Your task to perform on an android device: change the clock display to analog Image 0: 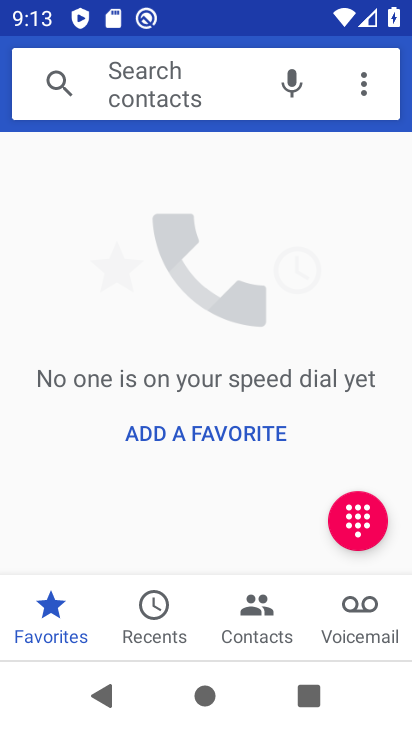
Step 0: press back button
Your task to perform on an android device: change the clock display to analog Image 1: 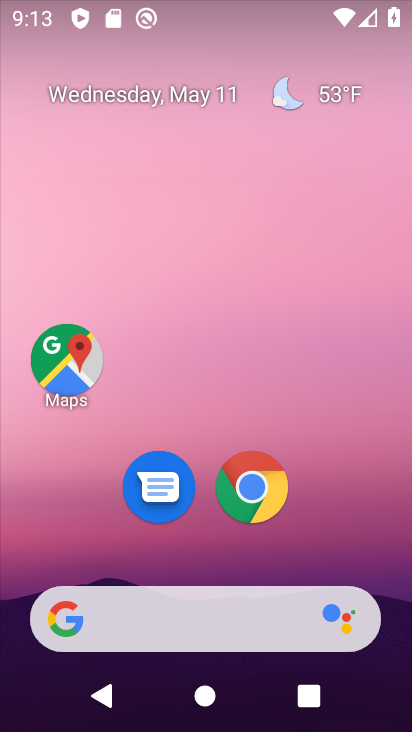
Step 1: drag from (315, 523) to (263, 0)
Your task to perform on an android device: change the clock display to analog Image 2: 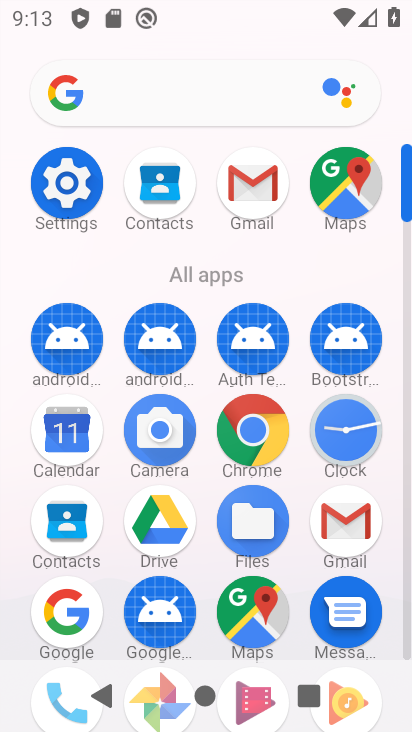
Step 2: click (348, 432)
Your task to perform on an android device: change the clock display to analog Image 3: 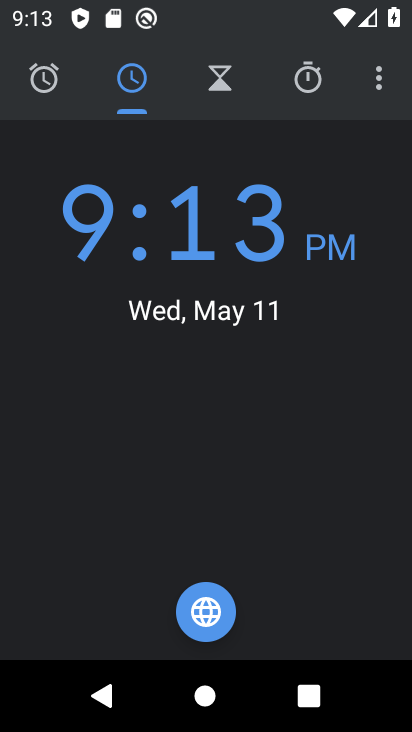
Step 3: click (379, 82)
Your task to perform on an android device: change the clock display to analog Image 4: 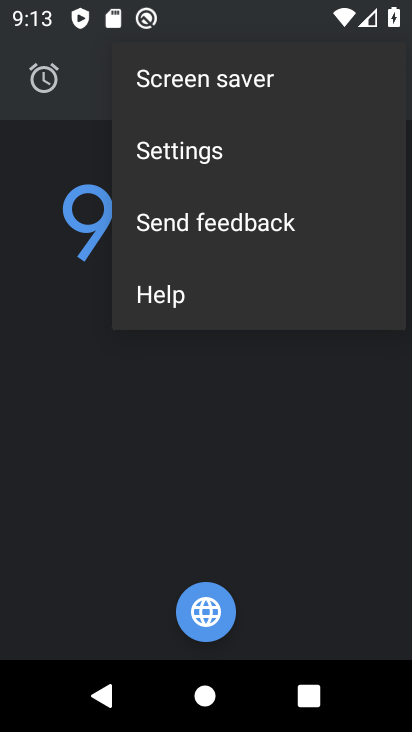
Step 4: click (216, 149)
Your task to perform on an android device: change the clock display to analog Image 5: 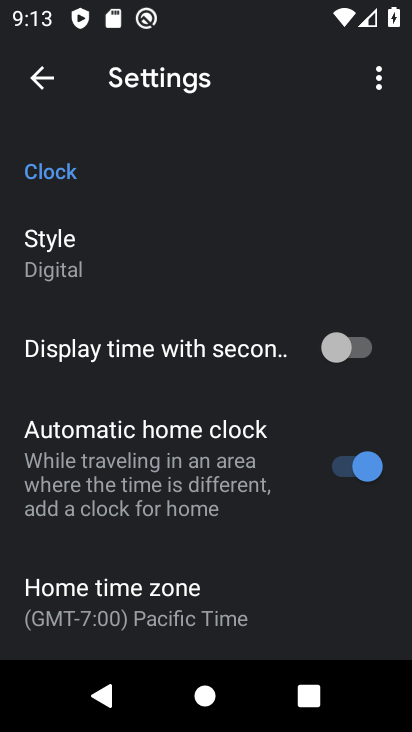
Step 5: click (100, 260)
Your task to perform on an android device: change the clock display to analog Image 6: 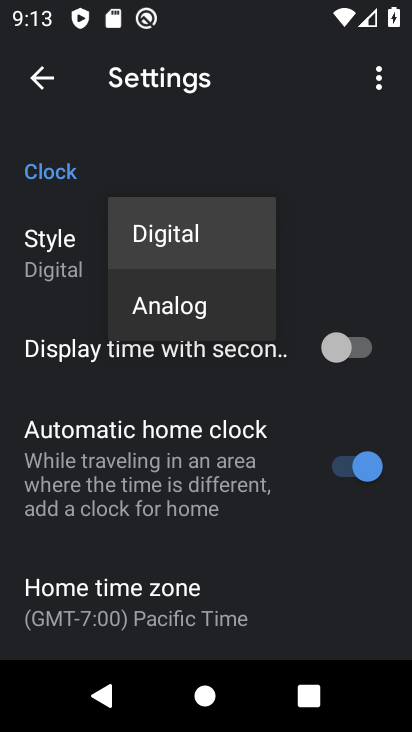
Step 6: click (146, 299)
Your task to perform on an android device: change the clock display to analog Image 7: 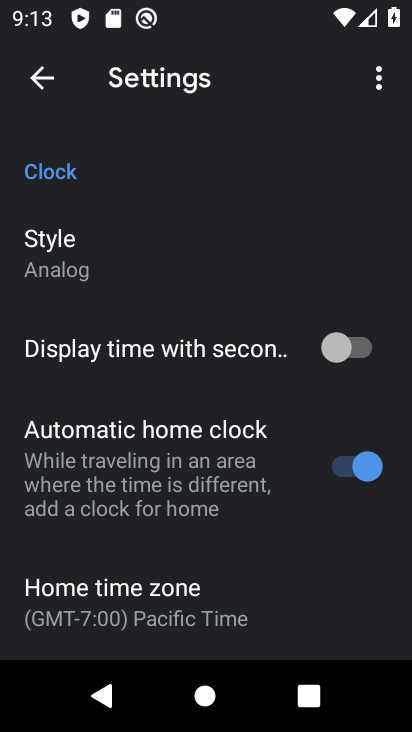
Step 7: task complete